Your task to perform on an android device: manage bookmarks in the chrome app Image 0: 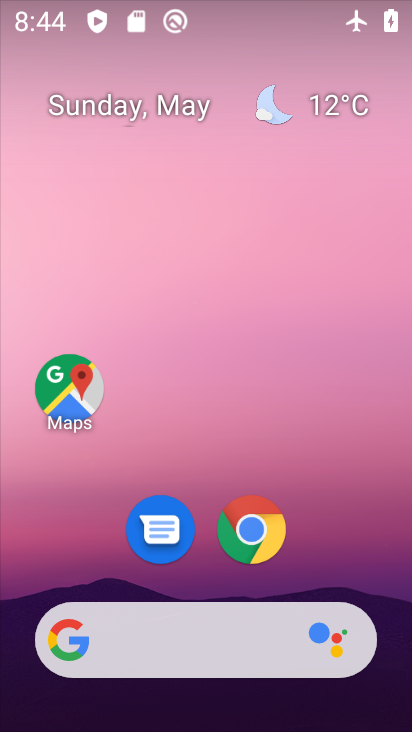
Step 0: click (259, 534)
Your task to perform on an android device: manage bookmarks in the chrome app Image 1: 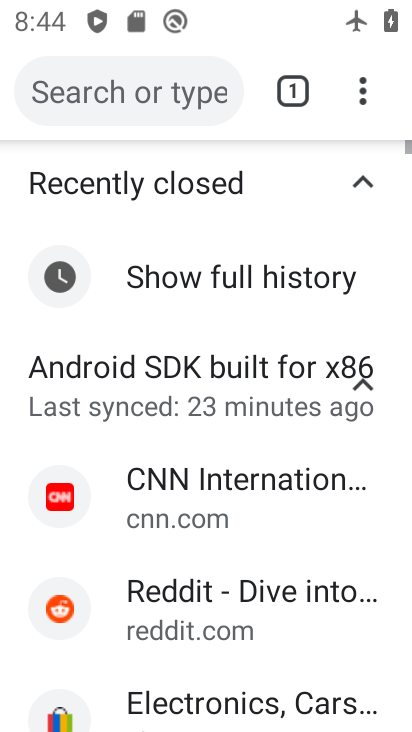
Step 1: click (363, 90)
Your task to perform on an android device: manage bookmarks in the chrome app Image 2: 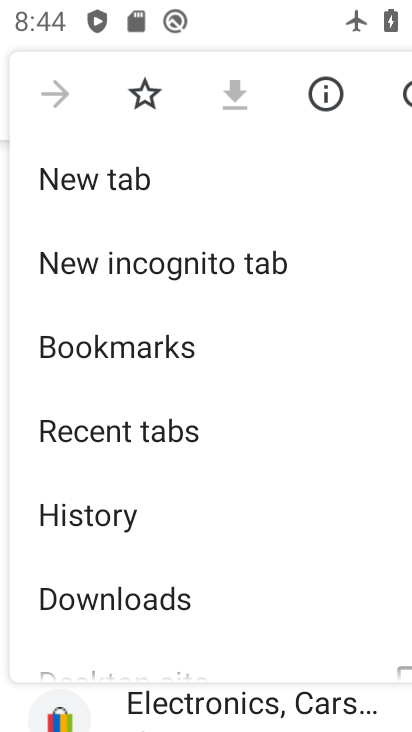
Step 2: click (213, 343)
Your task to perform on an android device: manage bookmarks in the chrome app Image 3: 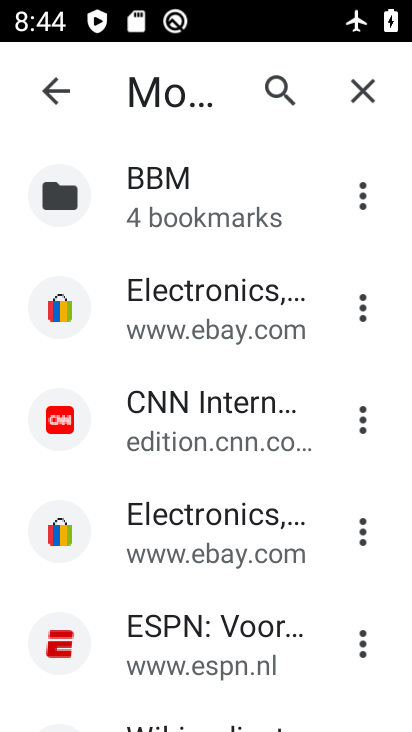
Step 3: click (367, 299)
Your task to perform on an android device: manage bookmarks in the chrome app Image 4: 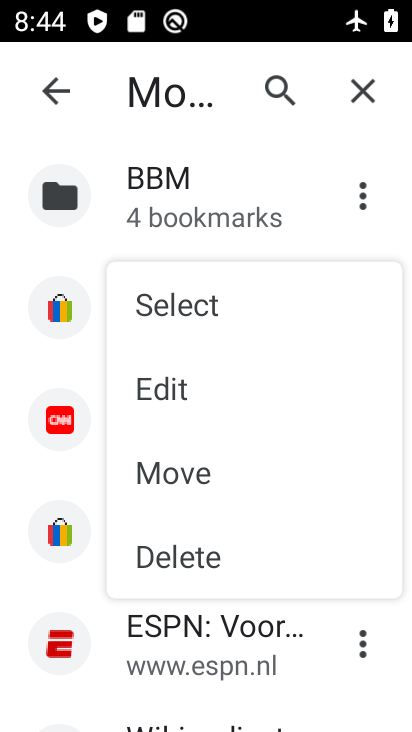
Step 4: click (202, 547)
Your task to perform on an android device: manage bookmarks in the chrome app Image 5: 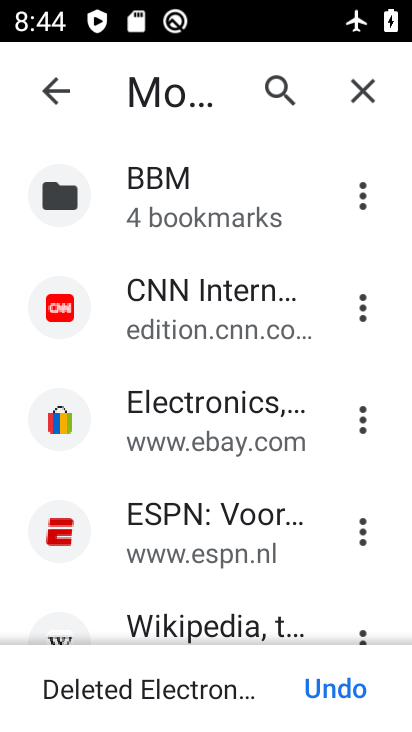
Step 5: task complete